Your task to perform on an android device: Go to Amazon Image 0: 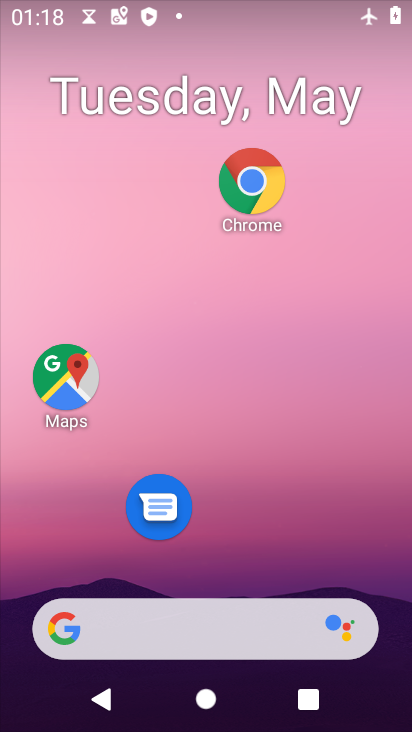
Step 0: click (244, 189)
Your task to perform on an android device: Go to Amazon Image 1: 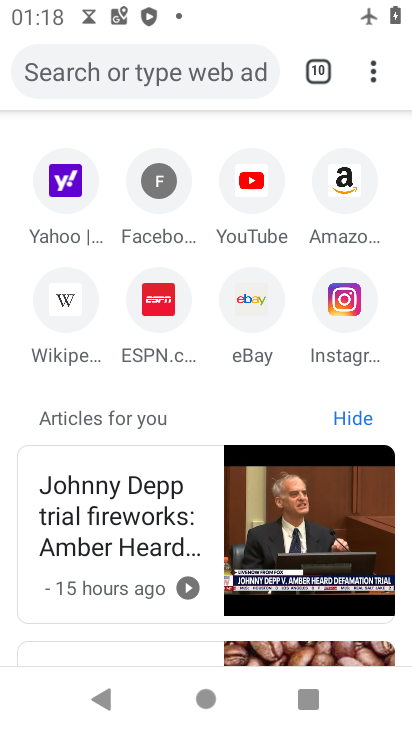
Step 1: click (369, 64)
Your task to perform on an android device: Go to Amazon Image 2: 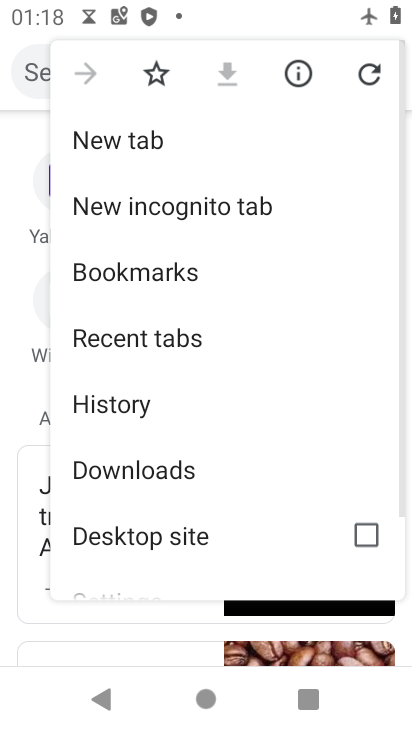
Step 2: click (205, 129)
Your task to perform on an android device: Go to Amazon Image 3: 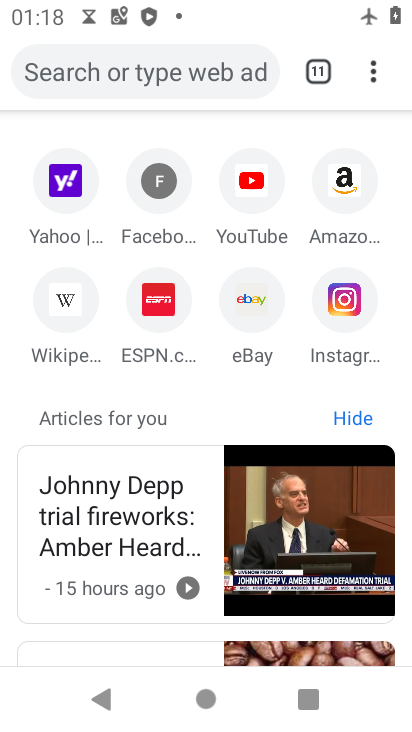
Step 3: click (339, 162)
Your task to perform on an android device: Go to Amazon Image 4: 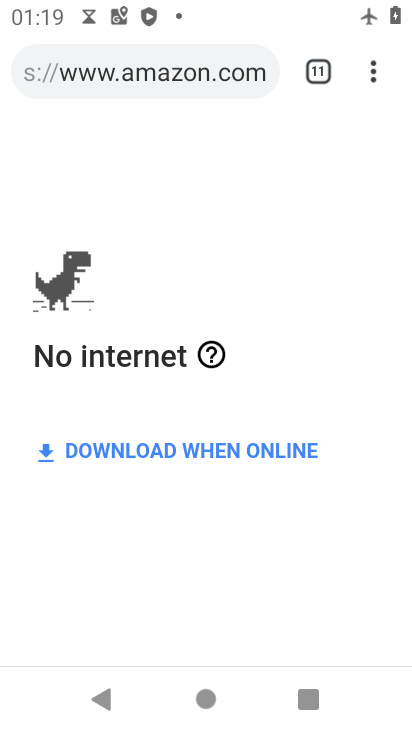
Step 4: task complete